Your task to perform on an android device: open a bookmark in the chrome app Image 0: 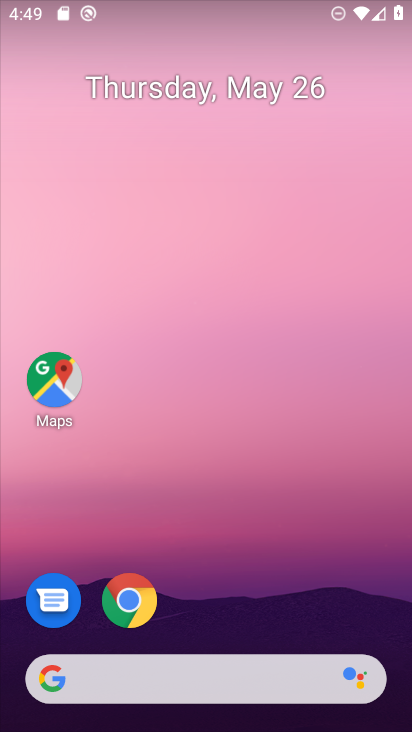
Step 0: click (144, 607)
Your task to perform on an android device: open a bookmark in the chrome app Image 1: 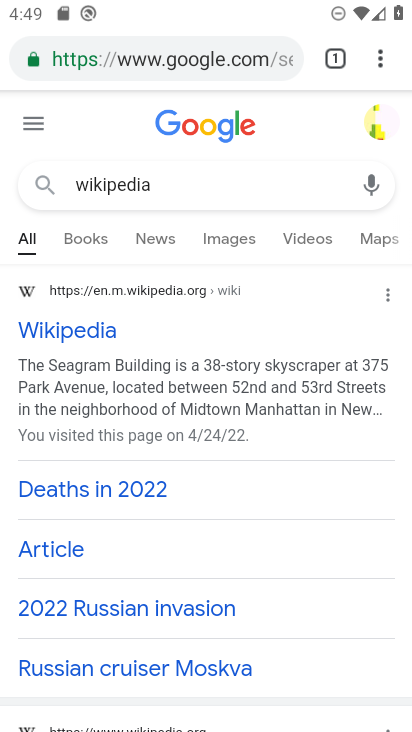
Step 1: click (380, 45)
Your task to perform on an android device: open a bookmark in the chrome app Image 2: 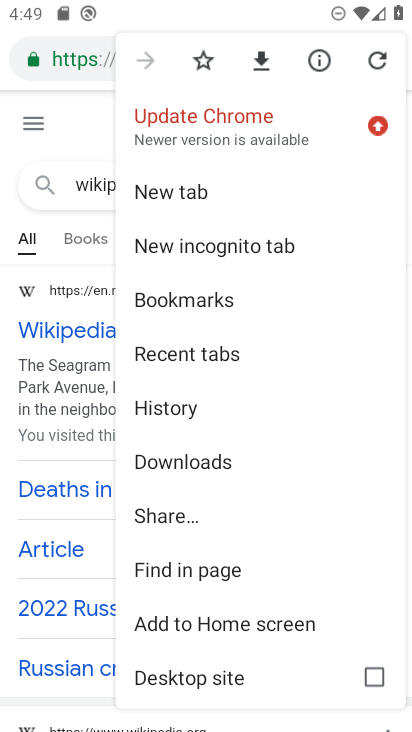
Step 2: click (201, 312)
Your task to perform on an android device: open a bookmark in the chrome app Image 3: 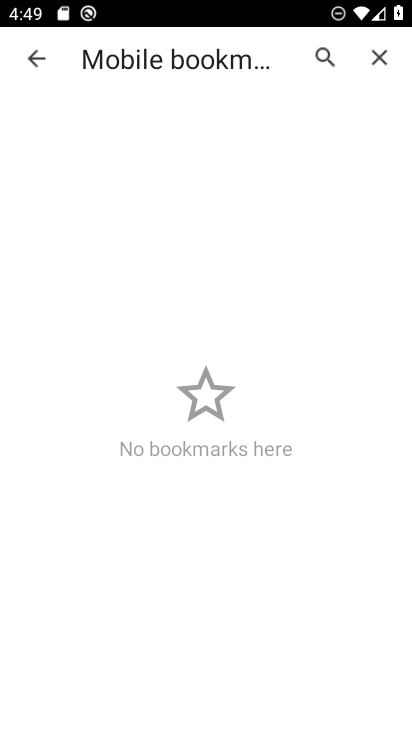
Step 3: task complete